Your task to perform on an android device: Open Yahoo.com Image 0: 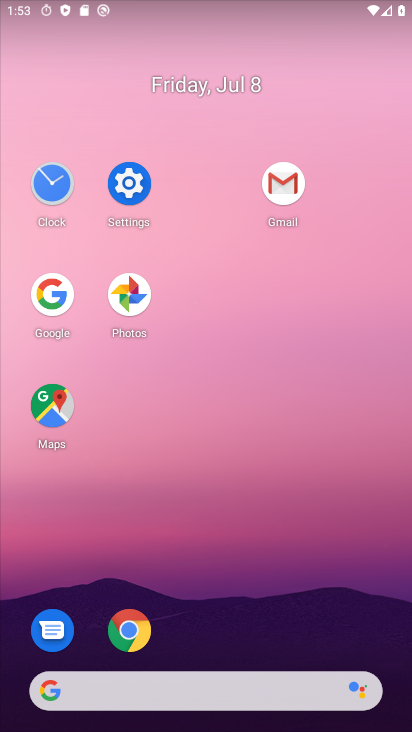
Step 0: click (147, 633)
Your task to perform on an android device: Open Yahoo.com Image 1: 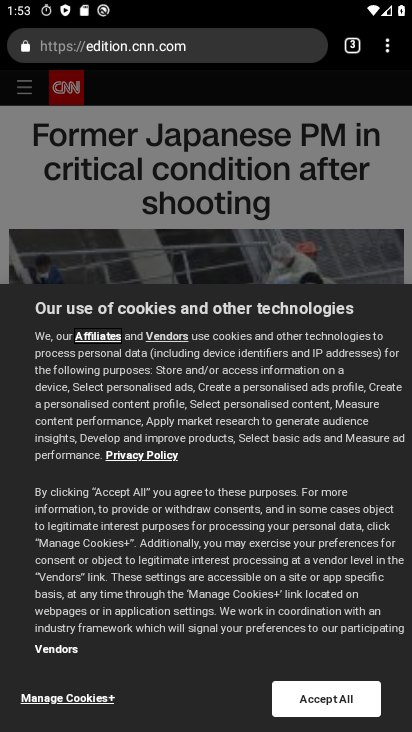
Step 1: click (350, 45)
Your task to perform on an android device: Open Yahoo.com Image 2: 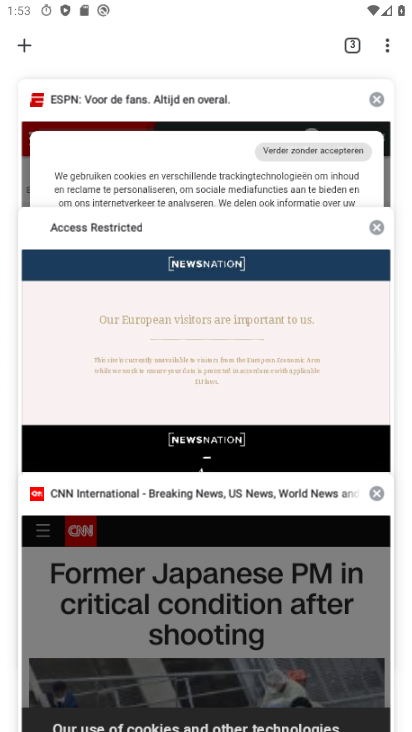
Step 2: click (22, 46)
Your task to perform on an android device: Open Yahoo.com Image 3: 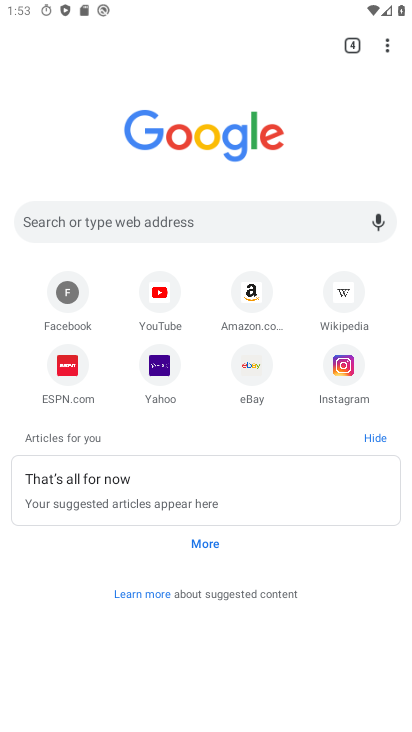
Step 3: click (152, 371)
Your task to perform on an android device: Open Yahoo.com Image 4: 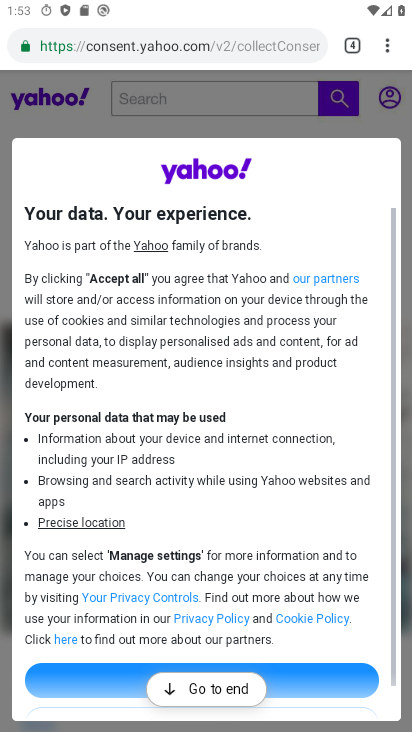
Step 4: task complete